Your task to perform on an android device: Open my contact list Image 0: 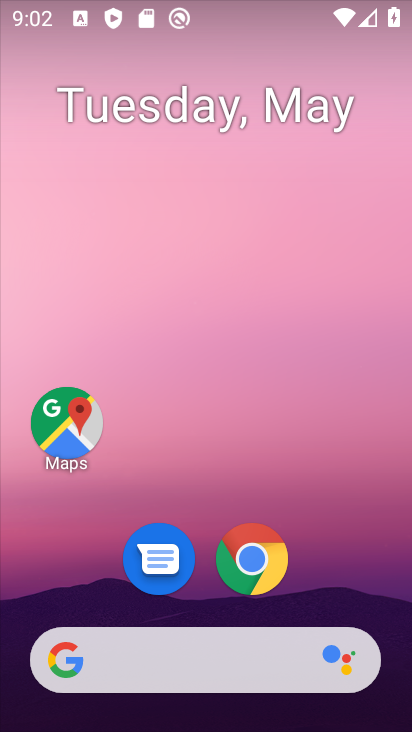
Step 0: drag from (188, 645) to (207, 264)
Your task to perform on an android device: Open my contact list Image 1: 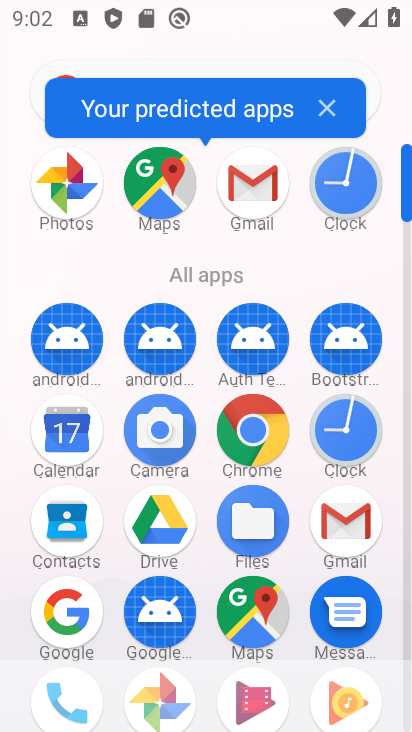
Step 1: click (74, 518)
Your task to perform on an android device: Open my contact list Image 2: 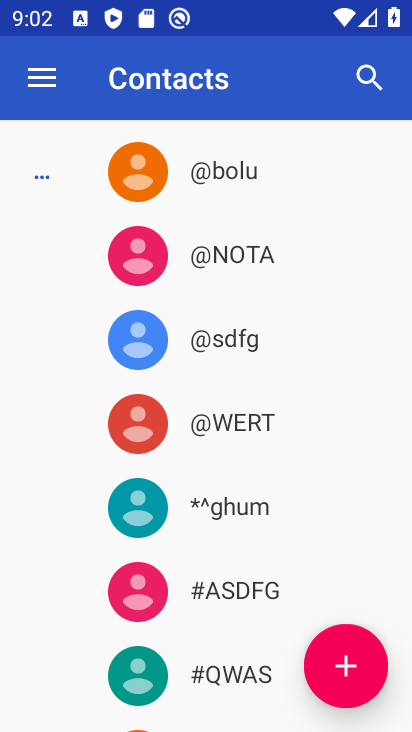
Step 2: task complete